Your task to perform on an android device: What's on the menu at Papa John's? Image 0: 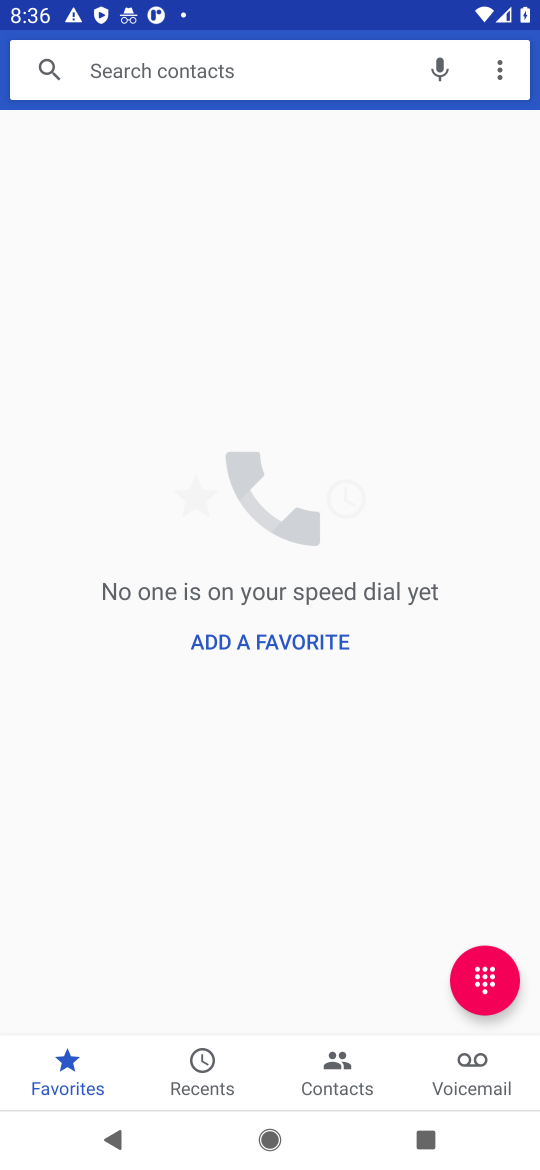
Step 0: press home button
Your task to perform on an android device: What's on the menu at Papa John's? Image 1: 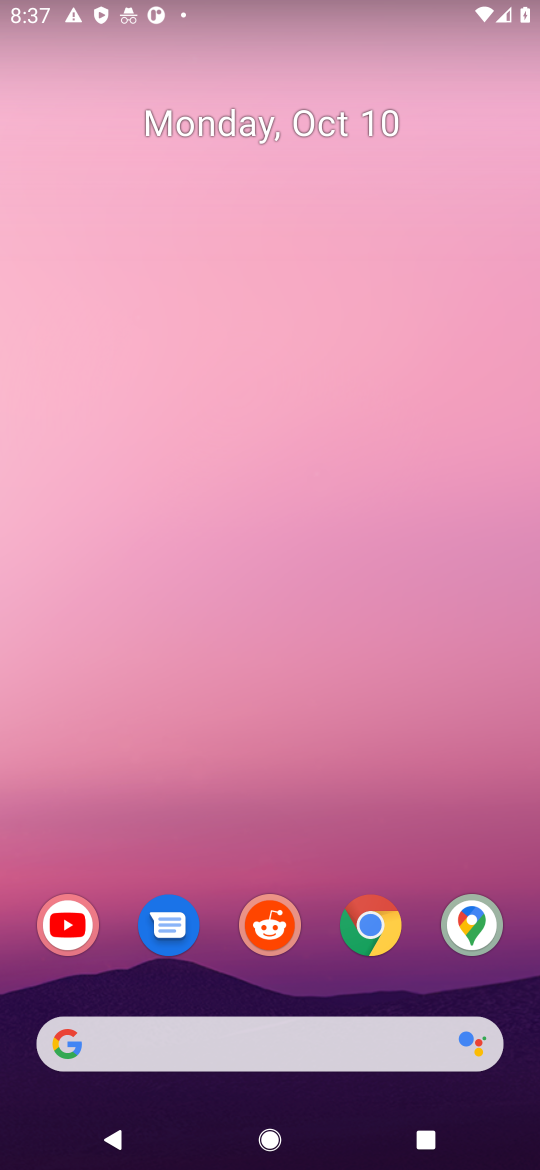
Step 1: drag from (338, 982) to (315, 70)
Your task to perform on an android device: What's on the menu at Papa John's? Image 2: 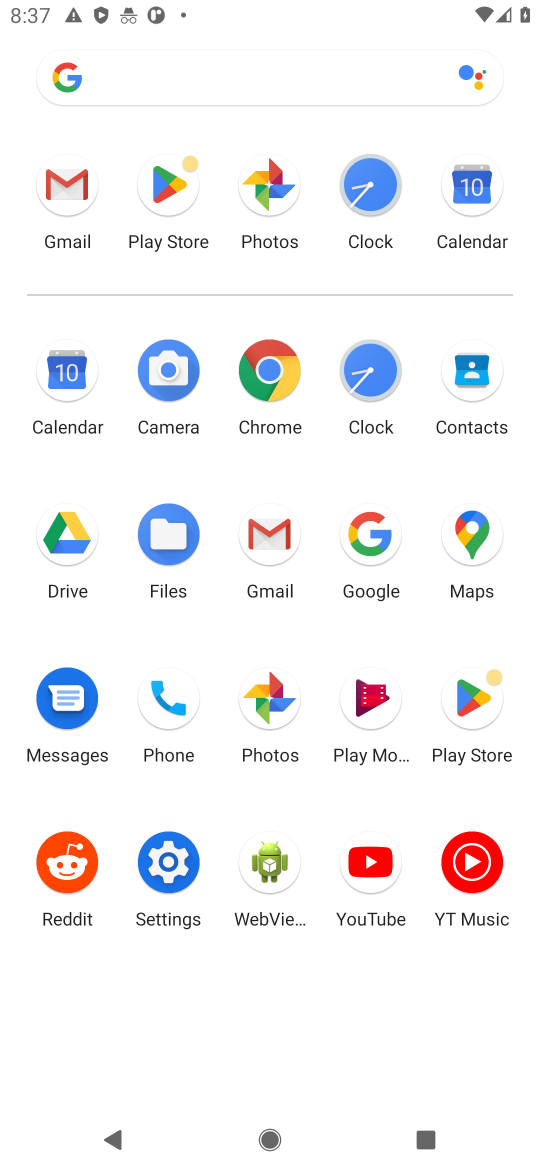
Step 2: click (260, 376)
Your task to perform on an android device: What's on the menu at Papa John's? Image 3: 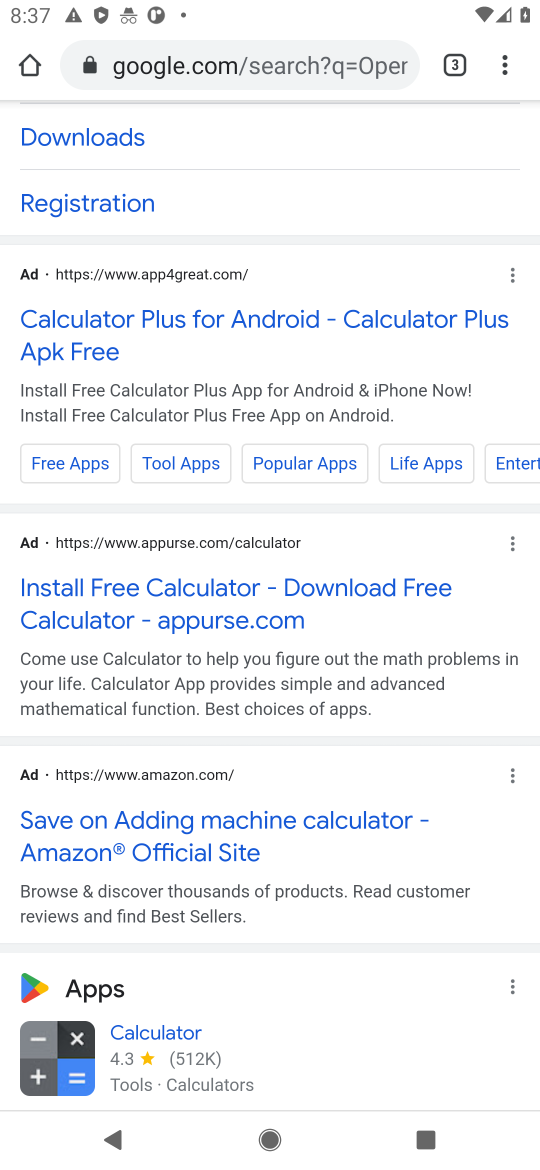
Step 3: click (258, 63)
Your task to perform on an android device: What's on the menu at Papa John's? Image 4: 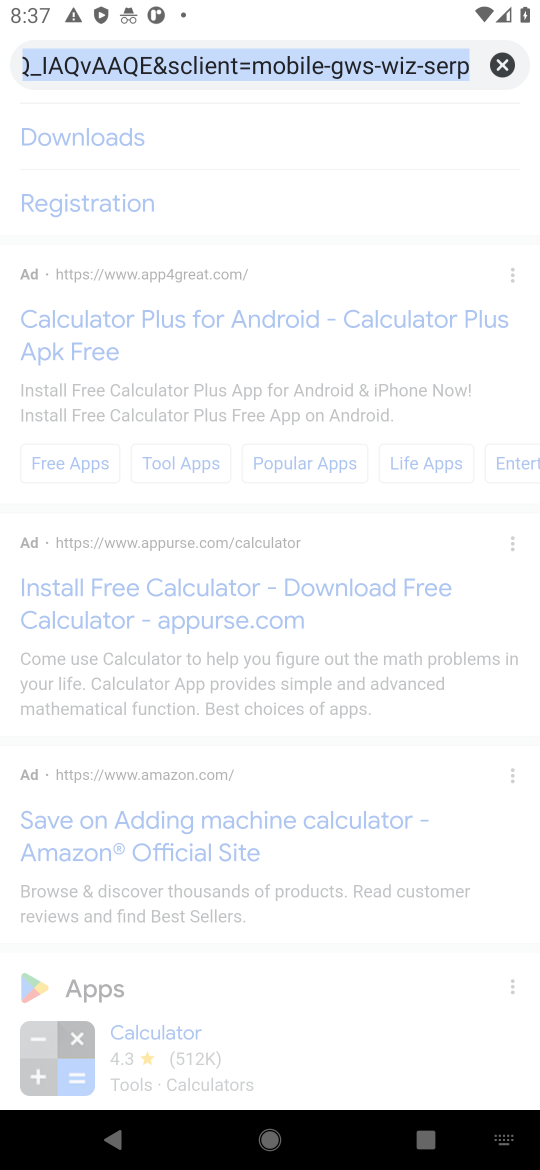
Step 4: type "What's on the menu at Pap John's?"
Your task to perform on an android device: What's on the menu at Papa John's? Image 5: 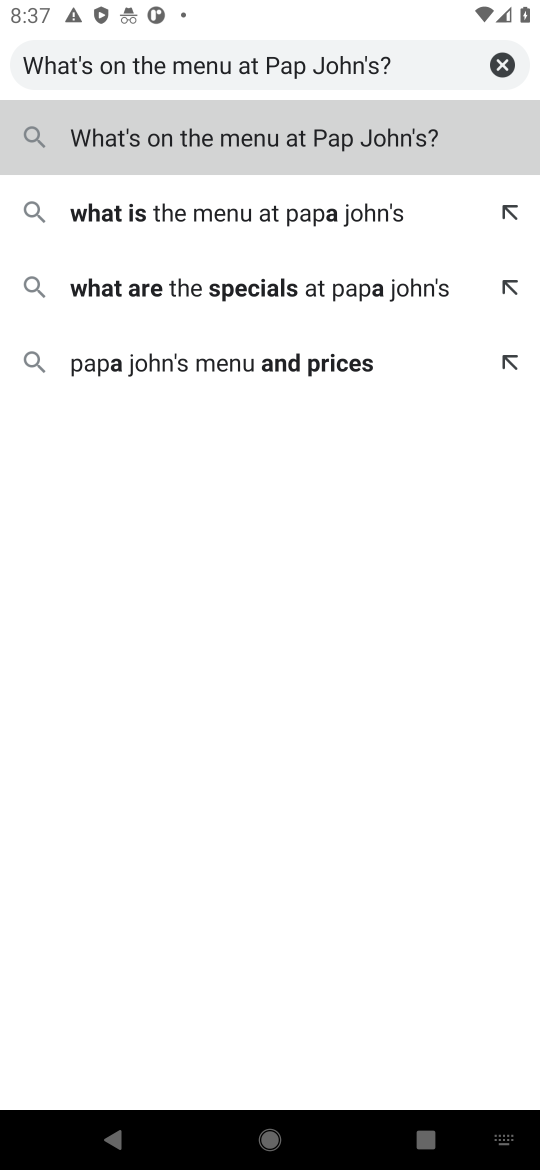
Step 5: press enter
Your task to perform on an android device: What's on the menu at Papa John's? Image 6: 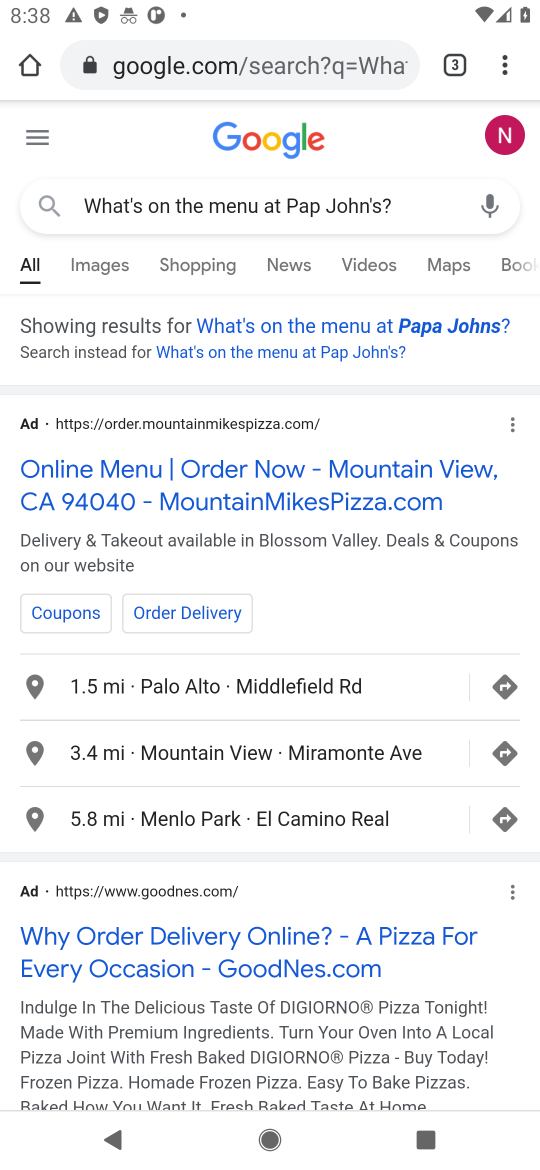
Step 6: drag from (276, 925) to (304, 288)
Your task to perform on an android device: What's on the menu at Papa John's? Image 7: 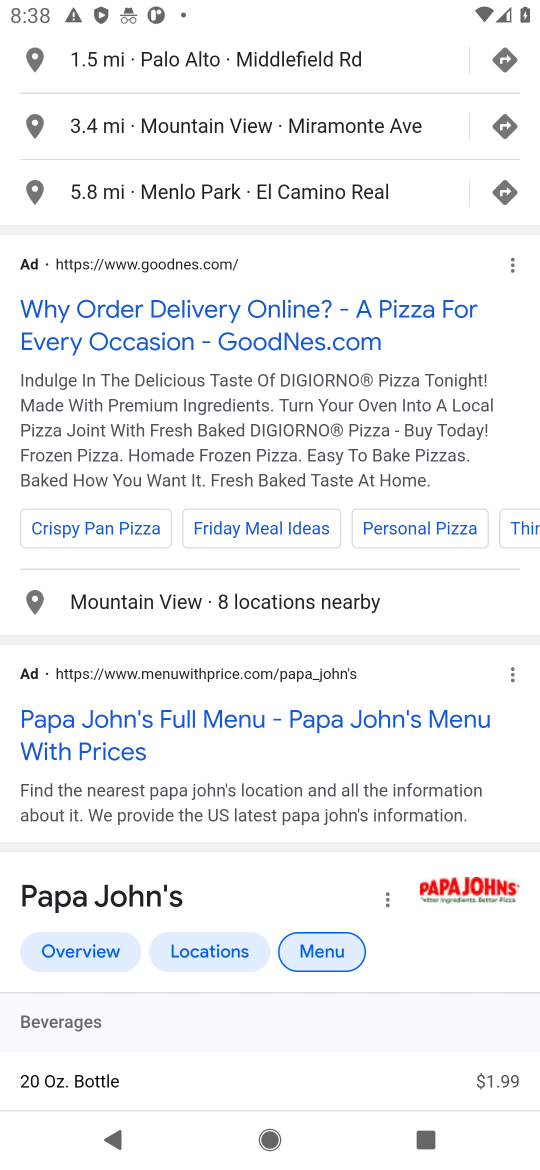
Step 7: click (352, 938)
Your task to perform on an android device: What's on the menu at Papa John's? Image 8: 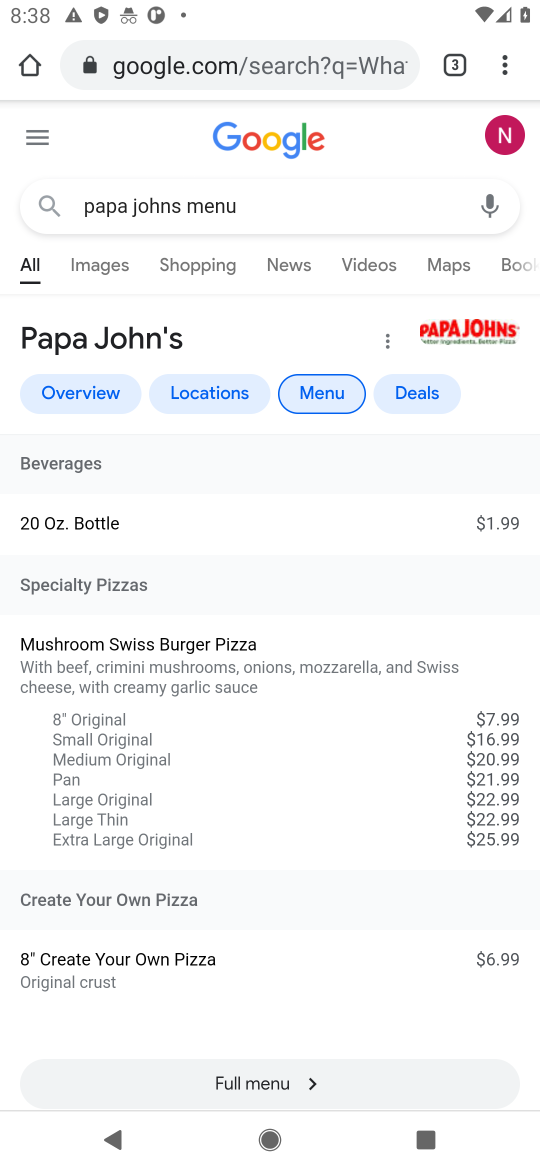
Step 8: click (275, 1077)
Your task to perform on an android device: What's on the menu at Papa John's? Image 9: 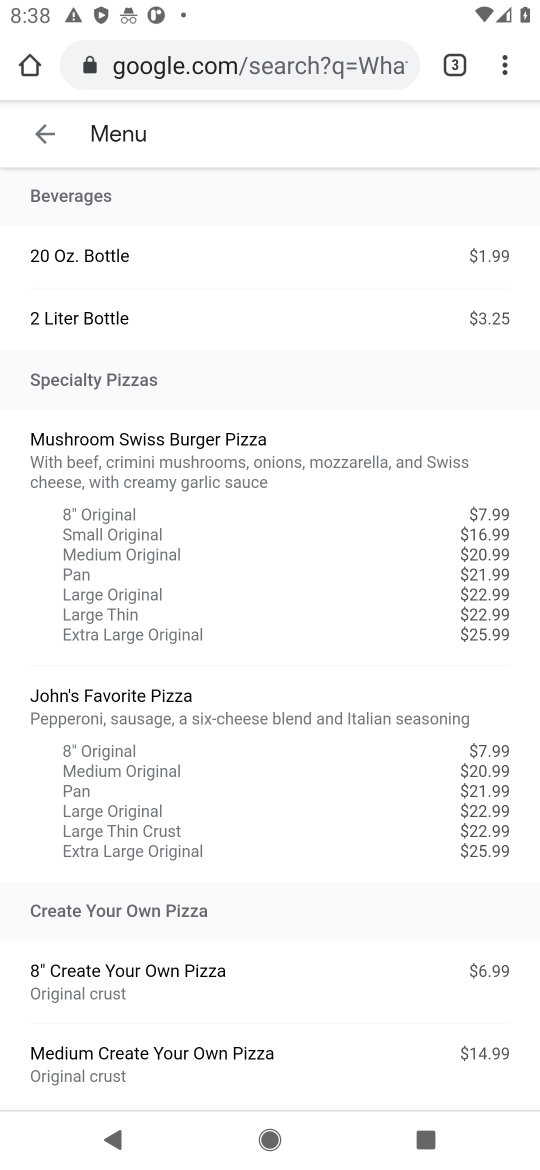
Step 9: task complete